Your task to perform on an android device: Search for "razer blade" on ebay.com, select the first entry, and add it to the cart. Image 0: 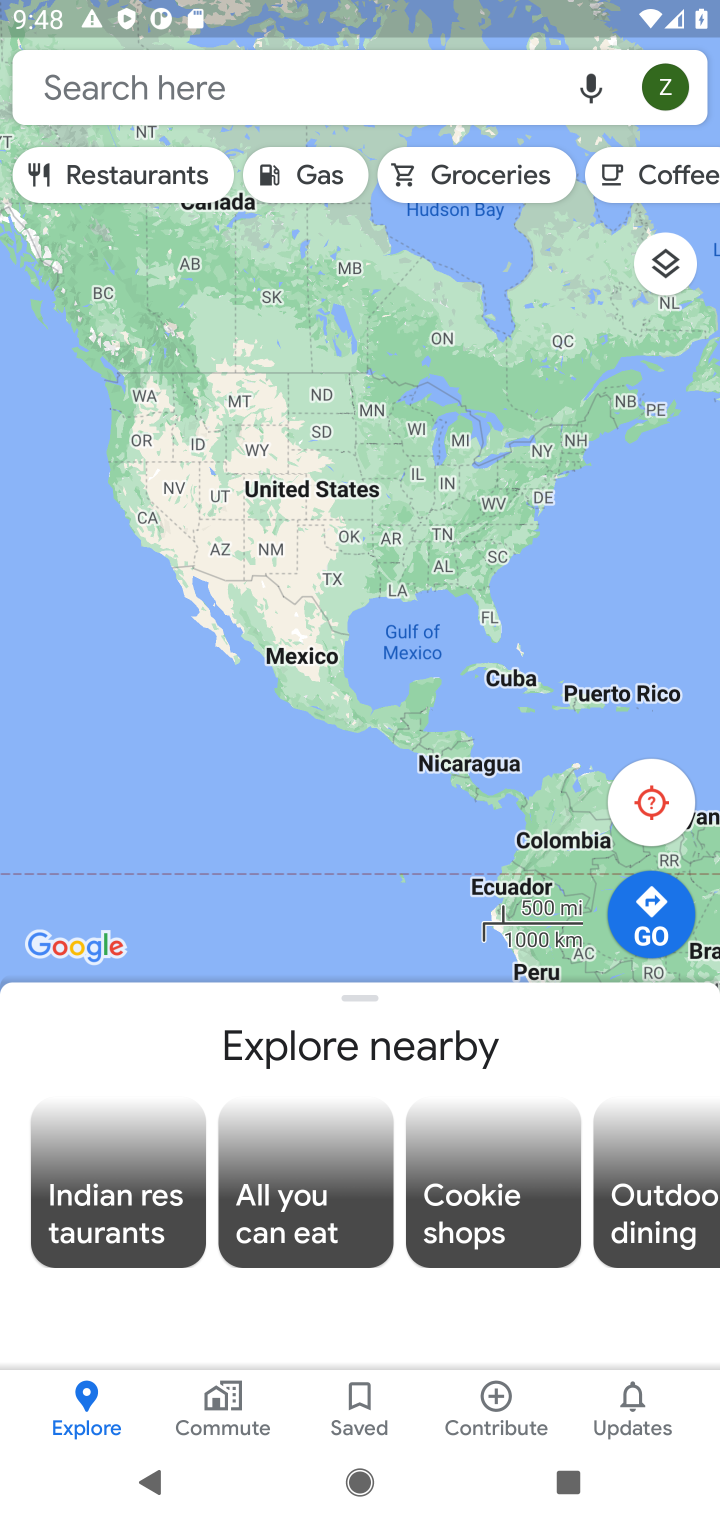
Step 0: press home button
Your task to perform on an android device: Search for "razer blade" on ebay.com, select the first entry, and add it to the cart. Image 1: 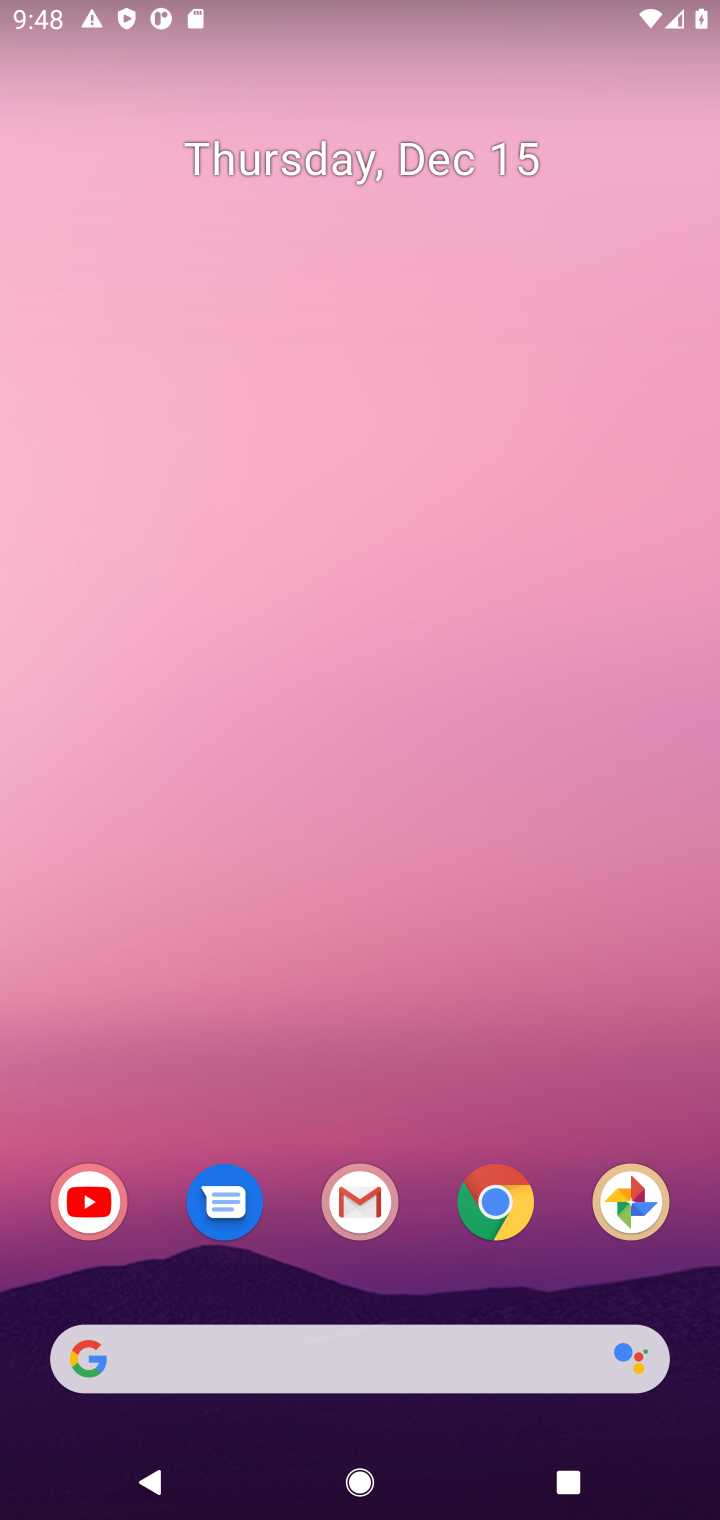
Step 1: click (504, 1213)
Your task to perform on an android device: Search for "razer blade" on ebay.com, select the first entry, and add it to the cart. Image 2: 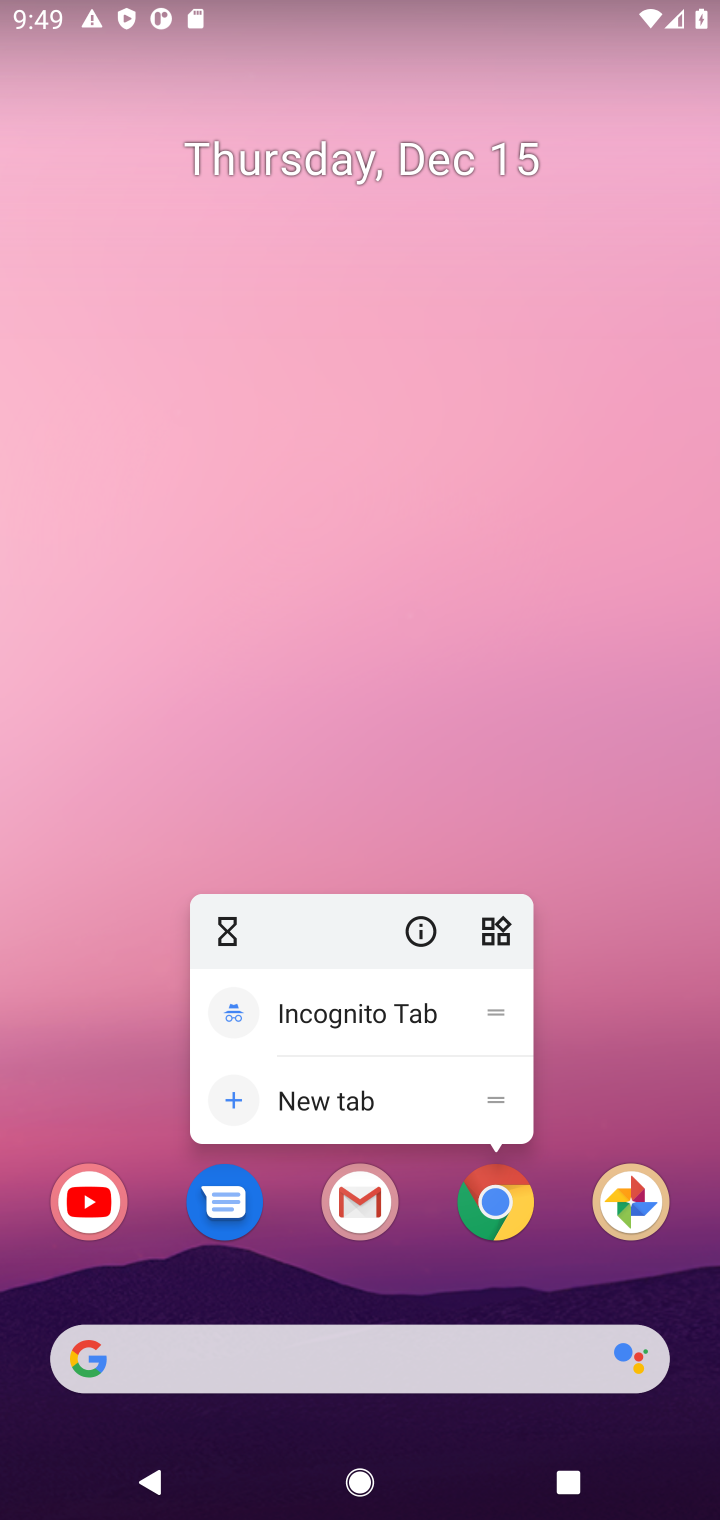
Step 2: click (504, 1213)
Your task to perform on an android device: Search for "razer blade" on ebay.com, select the first entry, and add it to the cart. Image 3: 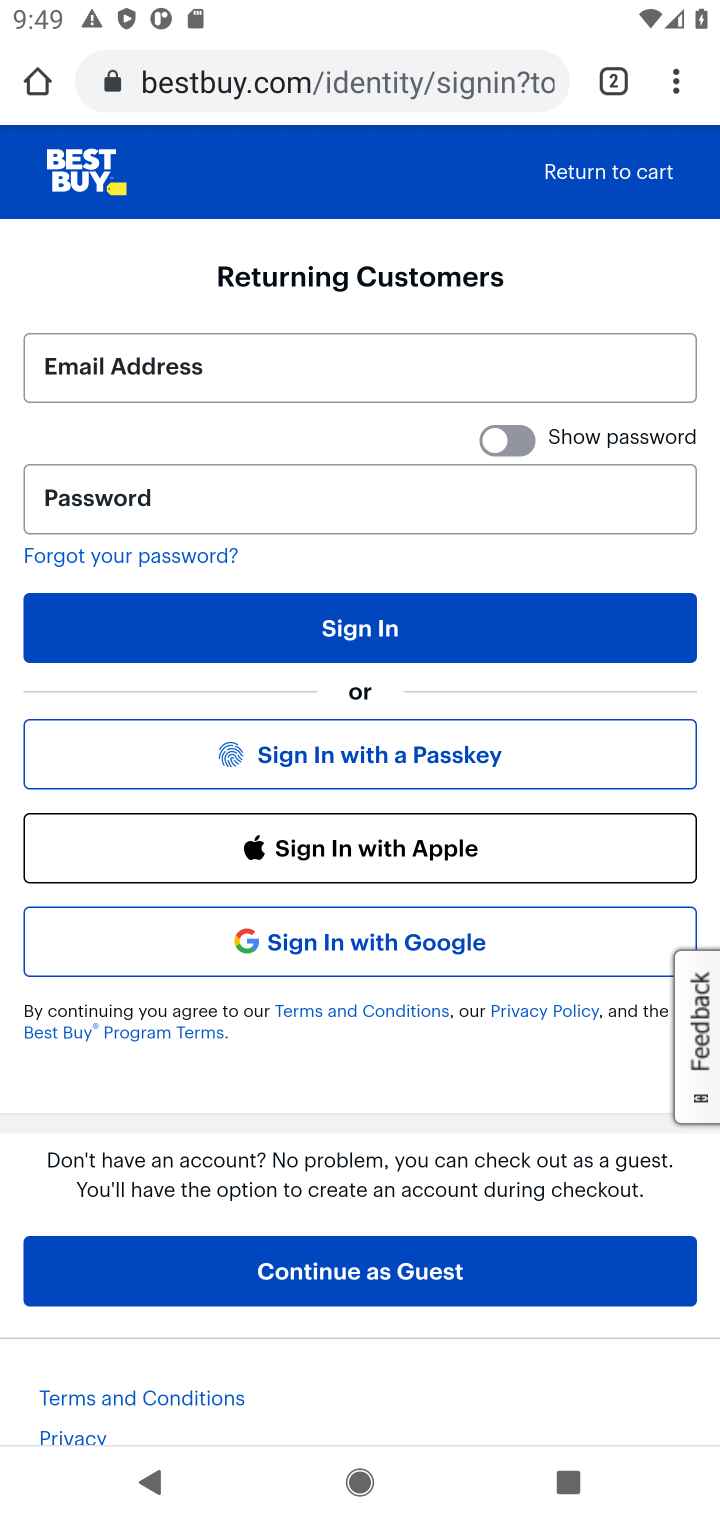
Step 3: click (288, 83)
Your task to perform on an android device: Search for "razer blade" on ebay.com, select the first entry, and add it to the cart. Image 4: 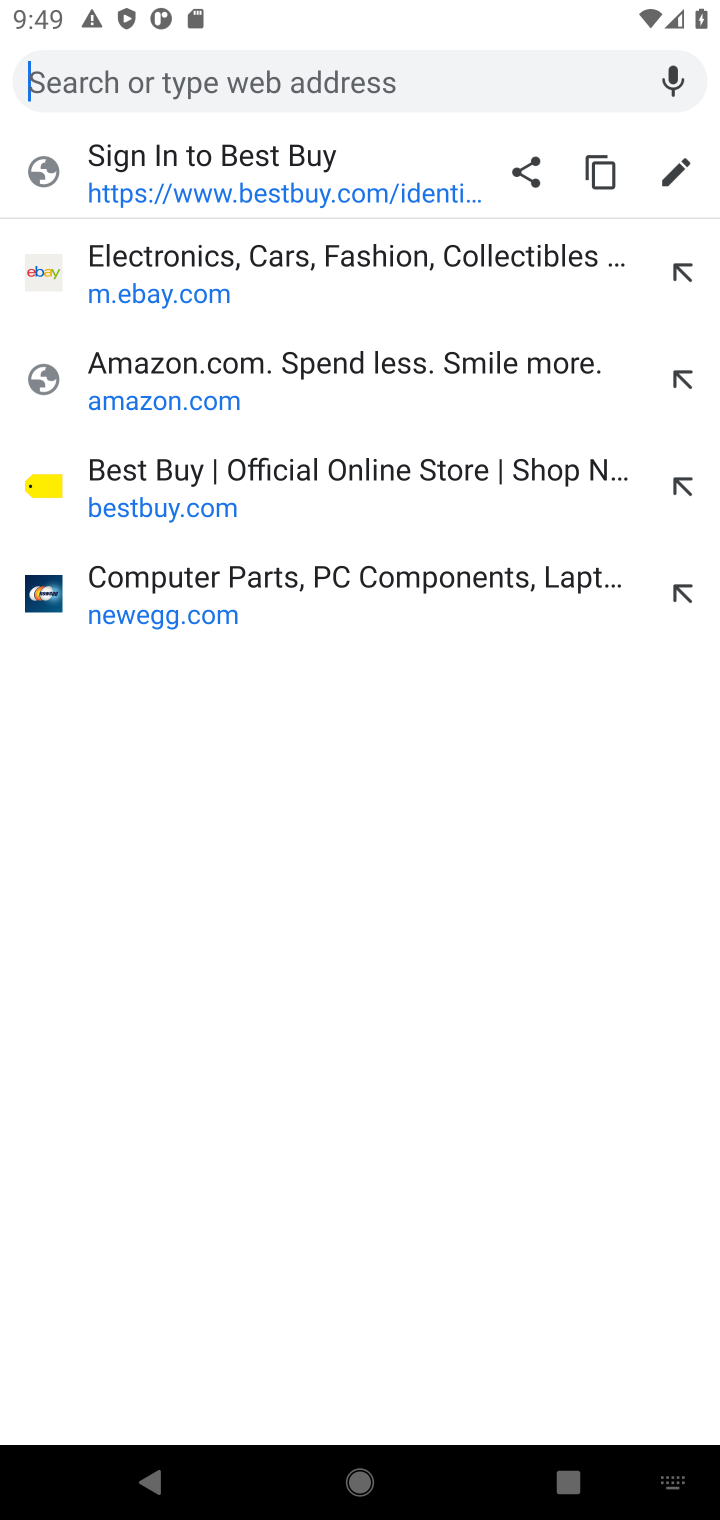
Step 4: click (158, 294)
Your task to perform on an android device: Search for "razer blade" on ebay.com, select the first entry, and add it to the cart. Image 5: 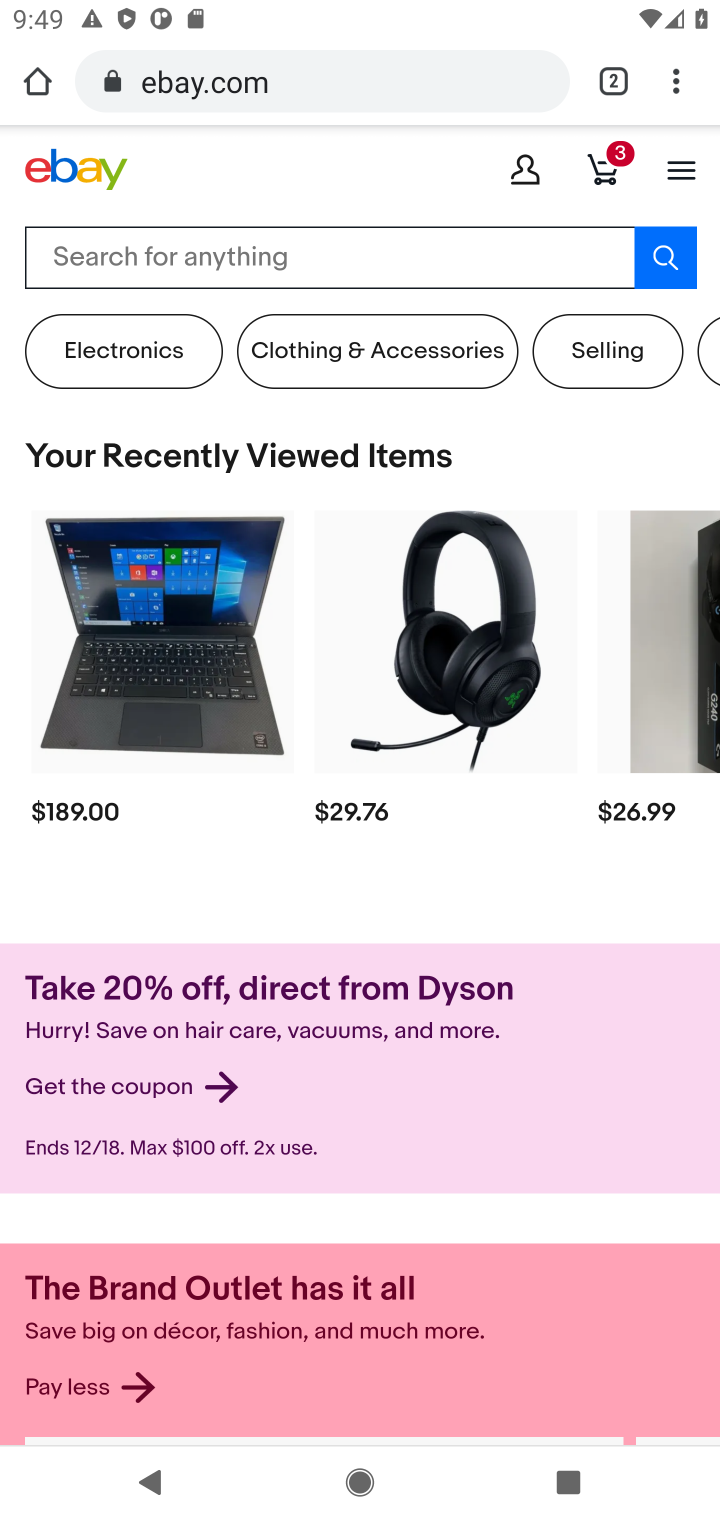
Step 5: click (199, 254)
Your task to perform on an android device: Search for "razer blade" on ebay.com, select the first entry, and add it to the cart. Image 6: 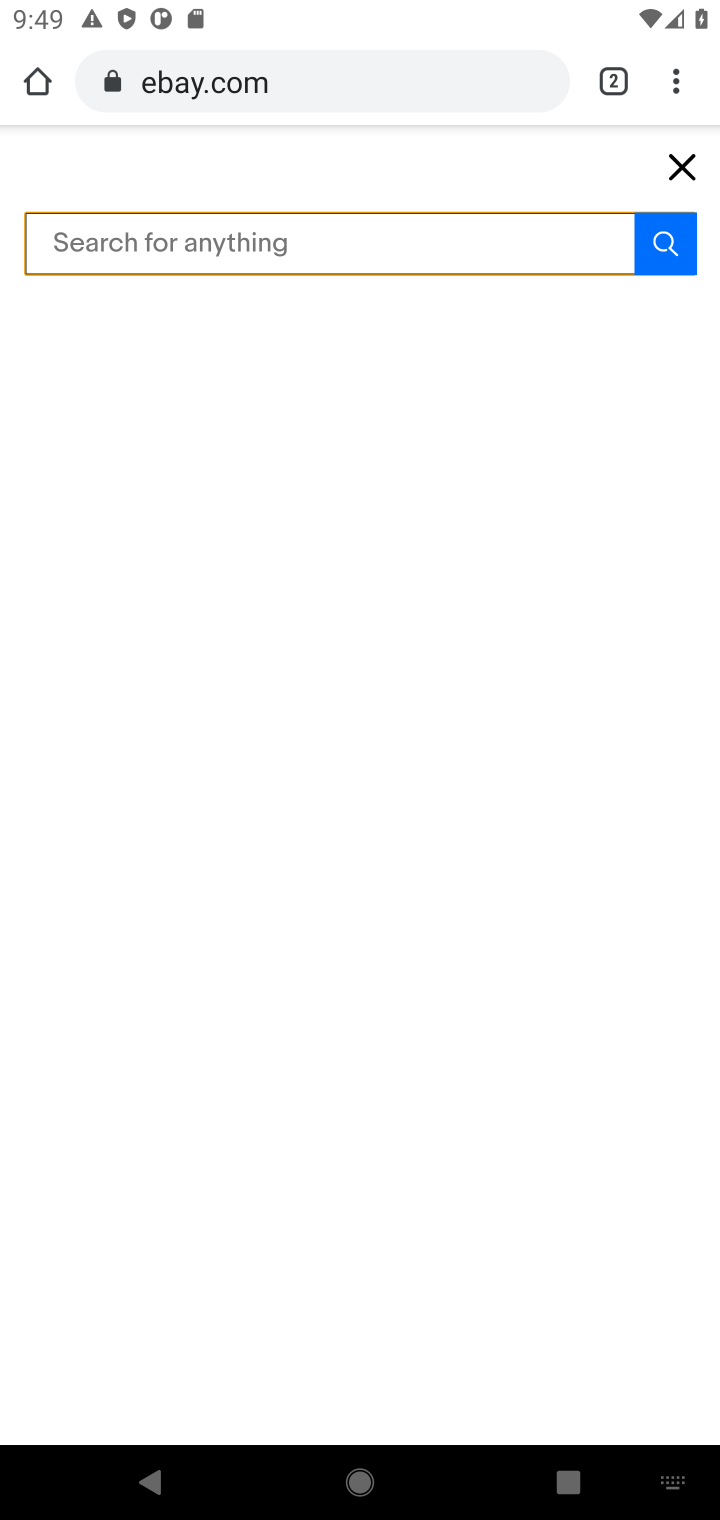
Step 6: type "razer blade"
Your task to perform on an android device: Search for "razer blade" on ebay.com, select the first entry, and add it to the cart. Image 7: 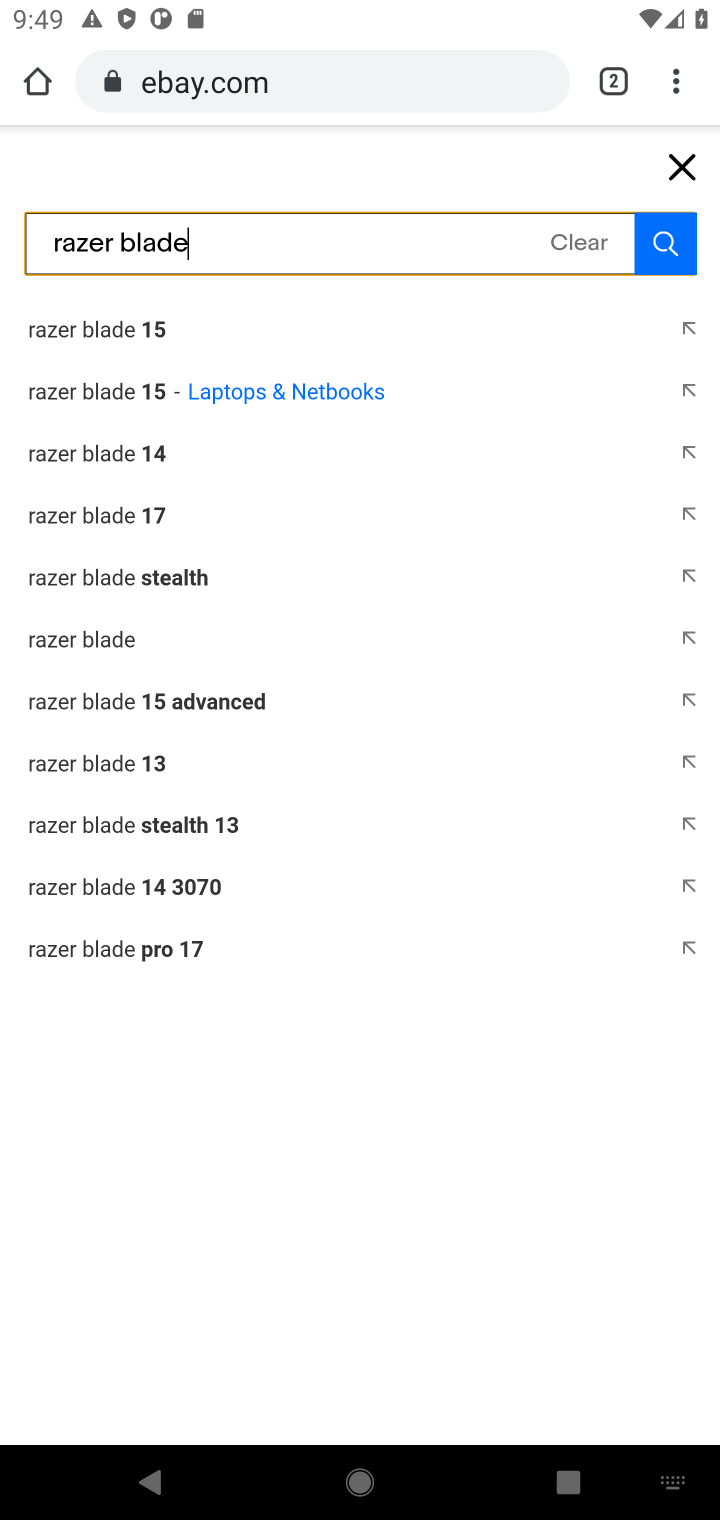
Step 7: click (94, 333)
Your task to perform on an android device: Search for "razer blade" on ebay.com, select the first entry, and add it to the cart. Image 8: 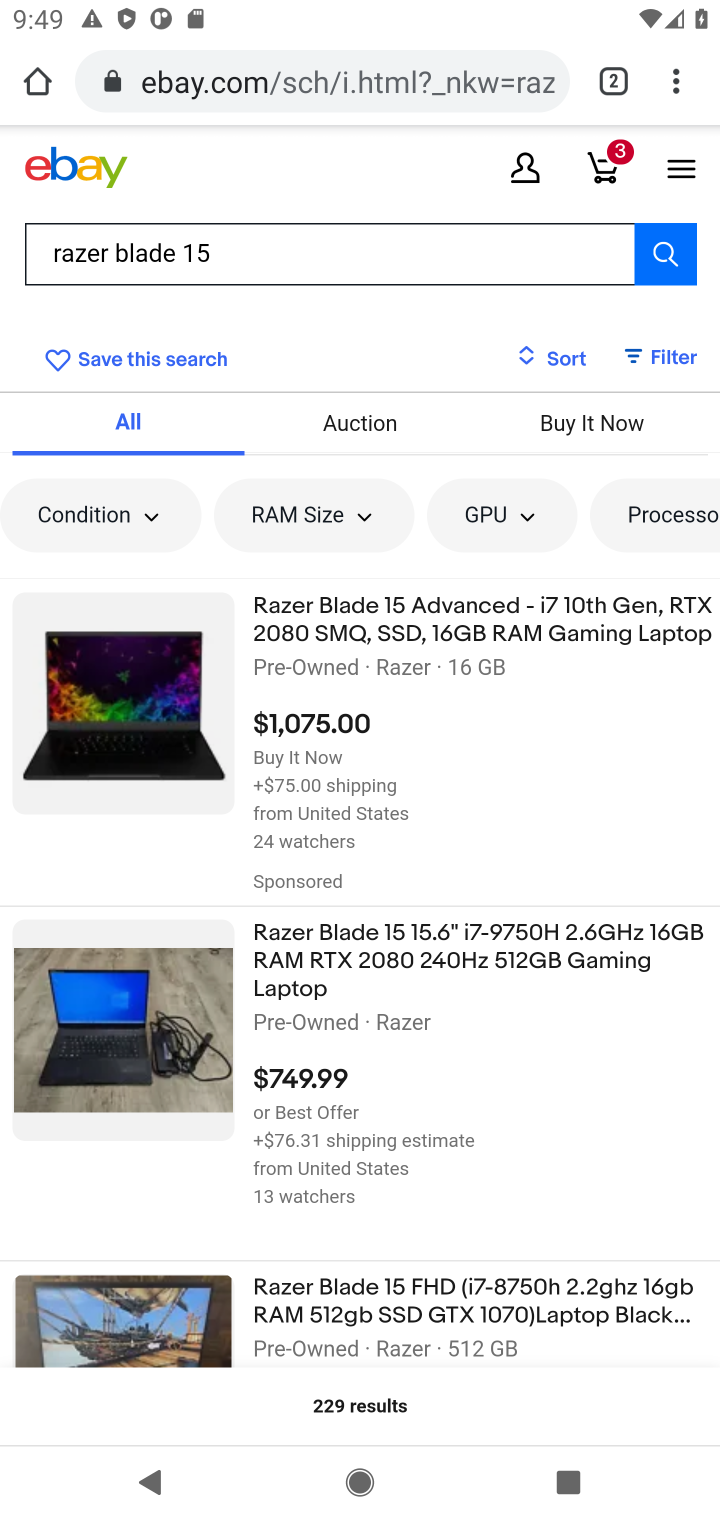
Step 8: click (281, 642)
Your task to perform on an android device: Search for "razer blade" on ebay.com, select the first entry, and add it to the cart. Image 9: 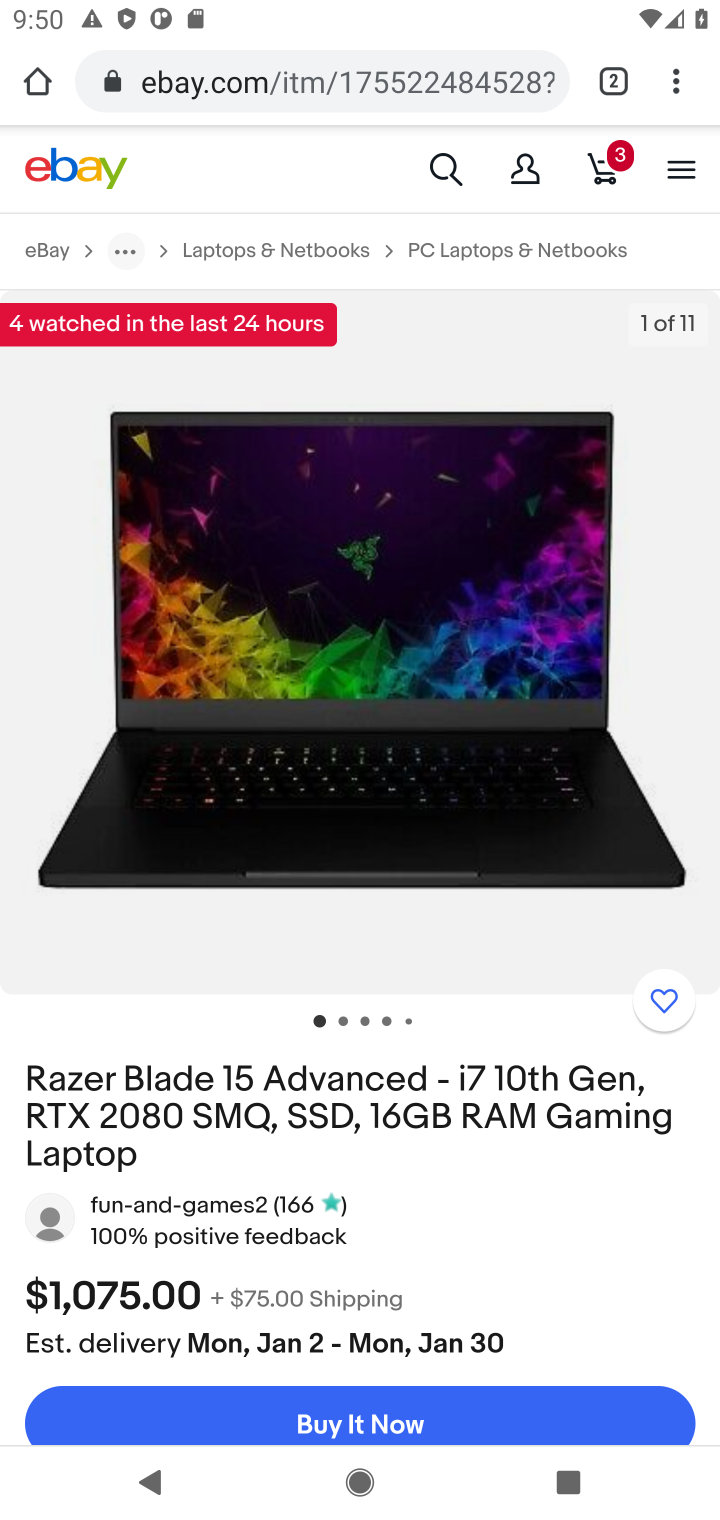
Step 9: drag from (380, 1222) to (308, 677)
Your task to perform on an android device: Search for "razer blade" on ebay.com, select the first entry, and add it to the cart. Image 10: 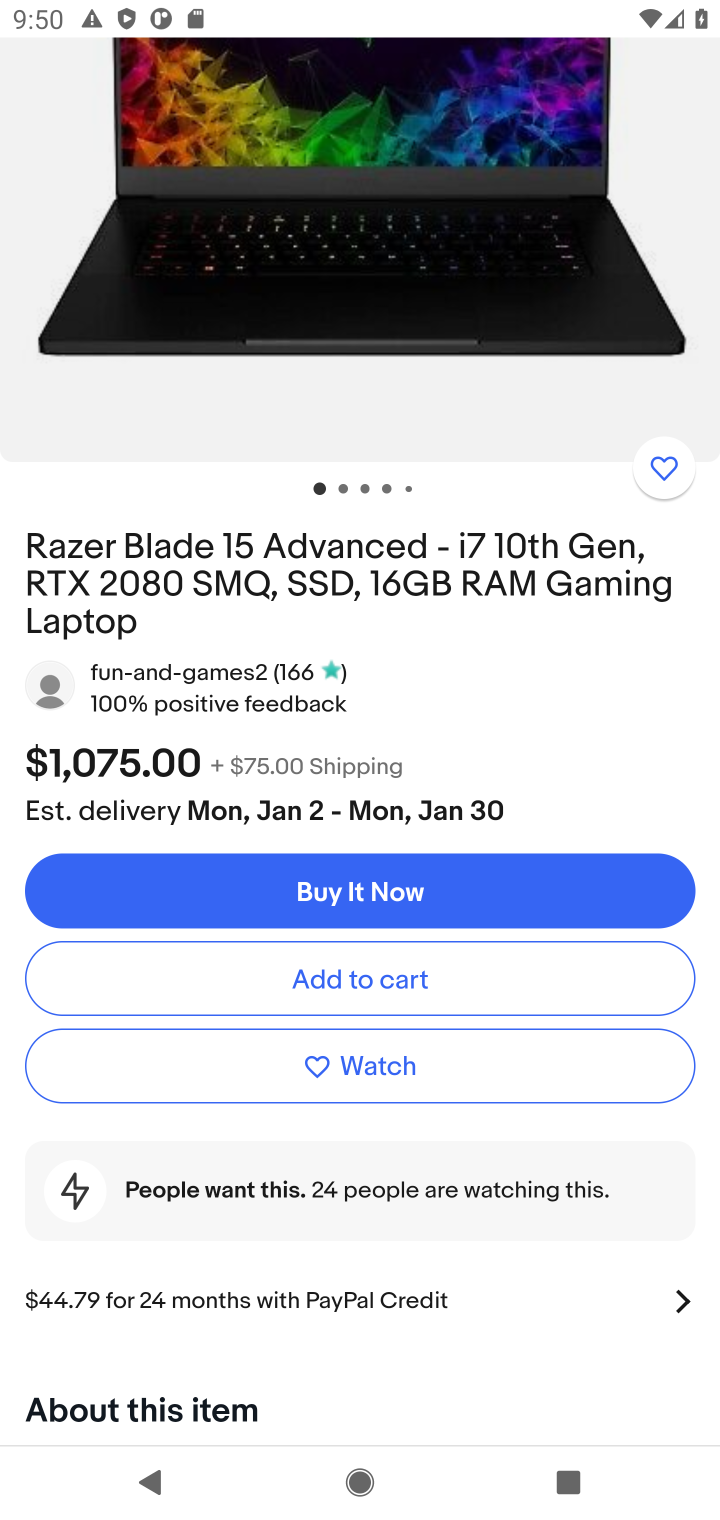
Step 10: click (302, 968)
Your task to perform on an android device: Search for "razer blade" on ebay.com, select the first entry, and add it to the cart. Image 11: 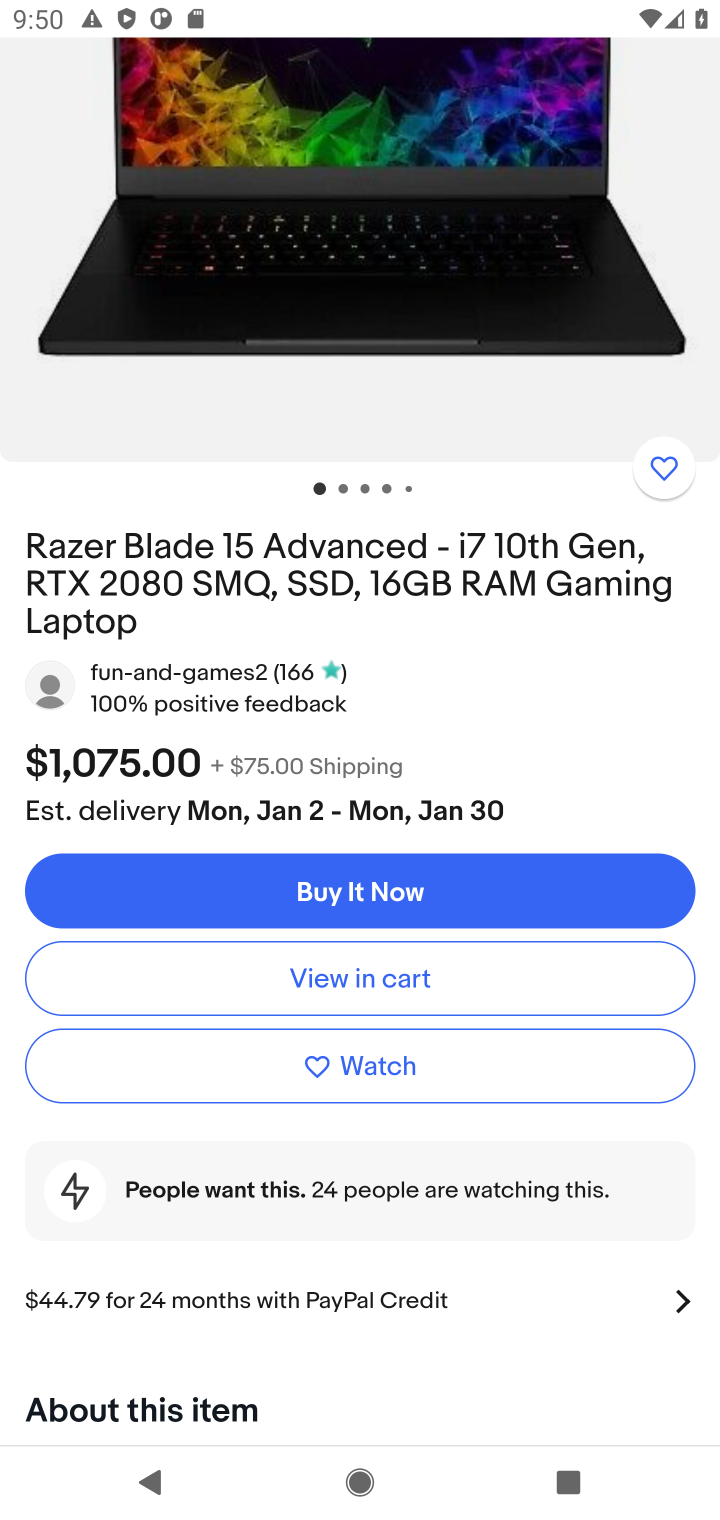
Step 11: task complete